Your task to perform on an android device: Go to settings Image 0: 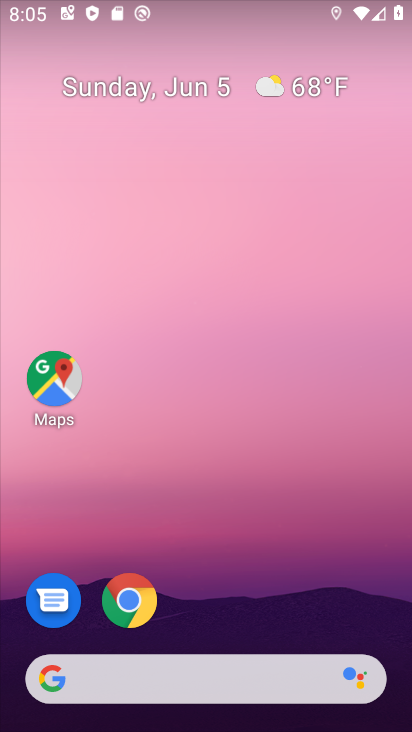
Step 0: drag from (261, 545) to (245, 49)
Your task to perform on an android device: Go to settings Image 1: 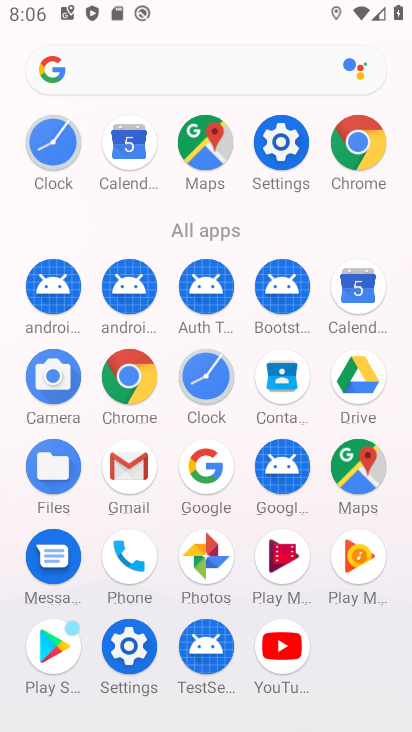
Step 1: click (281, 146)
Your task to perform on an android device: Go to settings Image 2: 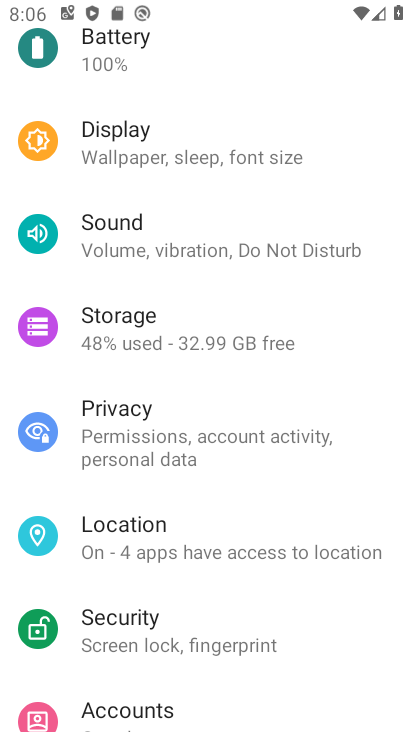
Step 2: task complete